Your task to perform on an android device: all mails in gmail Image 0: 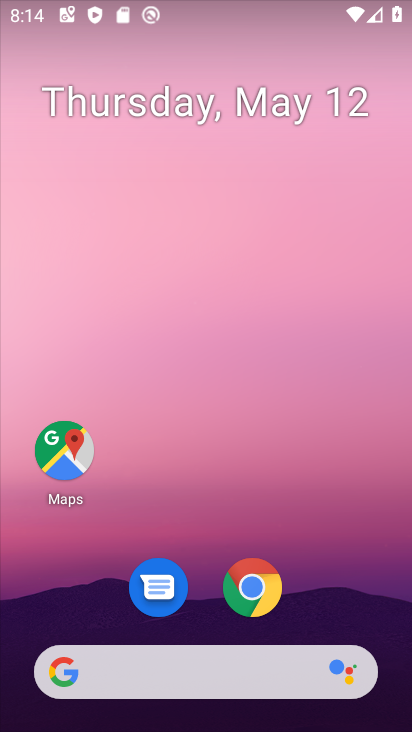
Step 0: drag from (311, 558) to (319, 271)
Your task to perform on an android device: all mails in gmail Image 1: 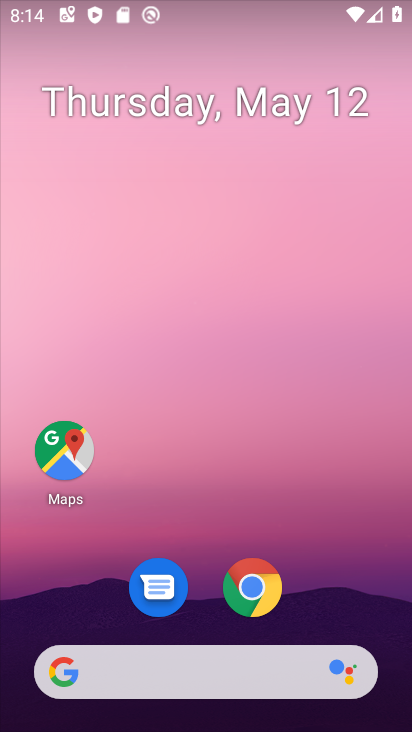
Step 1: drag from (314, 585) to (303, 198)
Your task to perform on an android device: all mails in gmail Image 2: 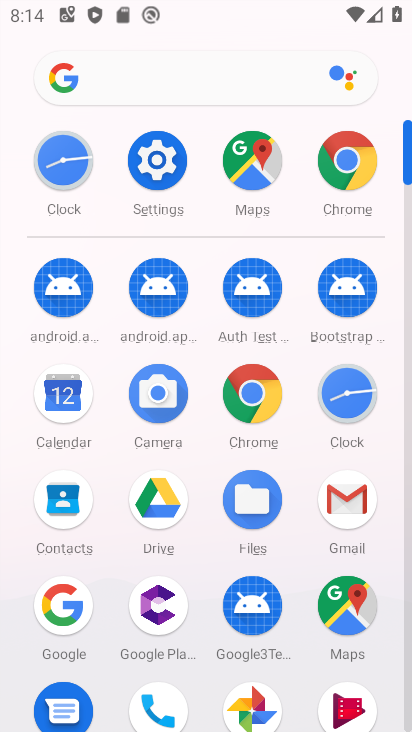
Step 2: click (334, 497)
Your task to perform on an android device: all mails in gmail Image 3: 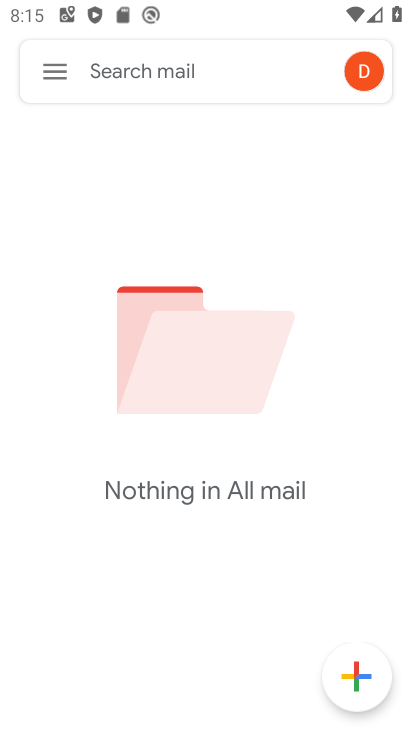
Step 3: task complete